Your task to perform on an android device: Open calendar and show me the fourth week of next month Image 0: 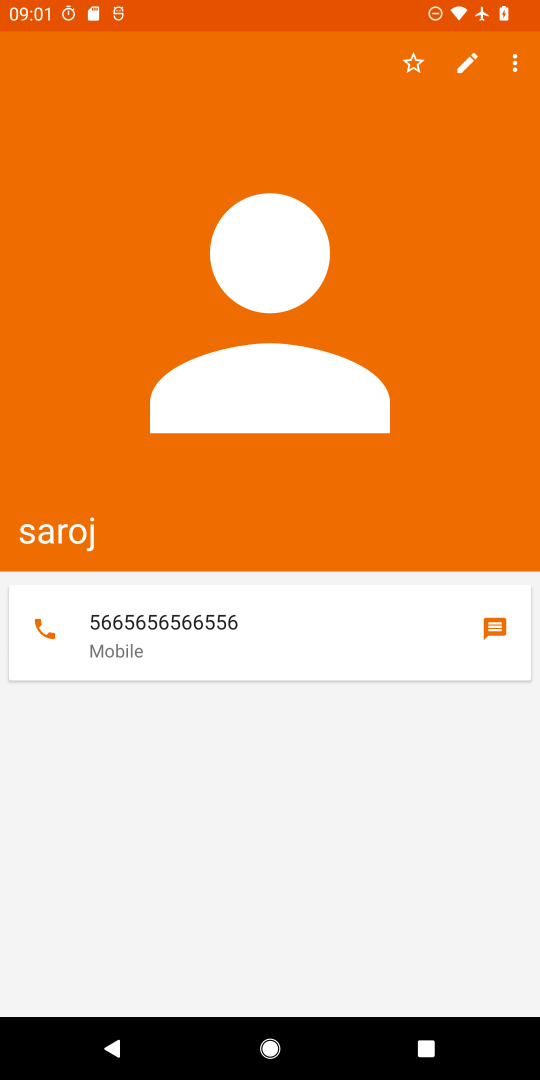
Step 0: press home button
Your task to perform on an android device: Open calendar and show me the fourth week of next month Image 1: 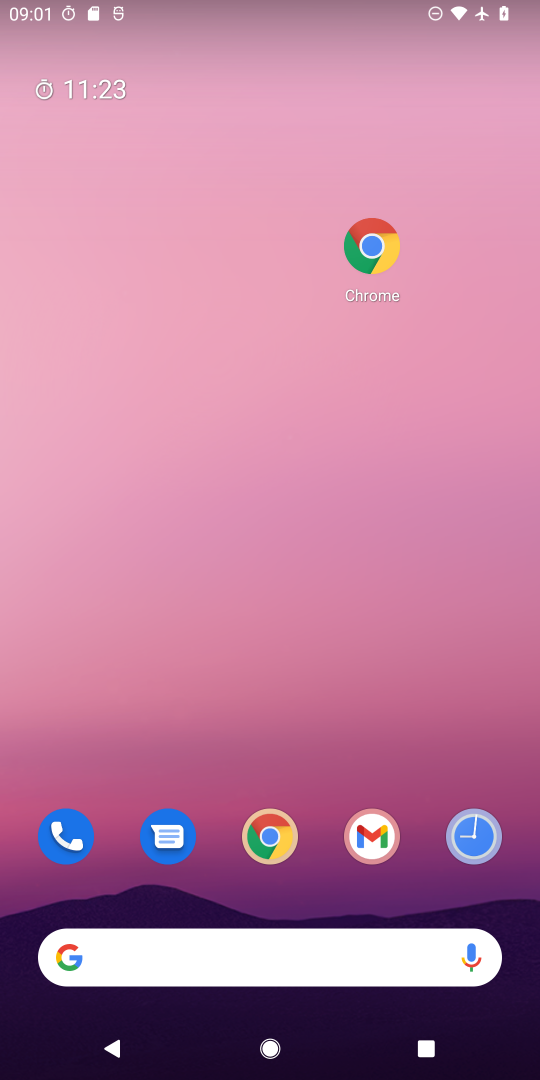
Step 1: drag from (353, 946) to (329, 155)
Your task to perform on an android device: Open calendar and show me the fourth week of next month Image 2: 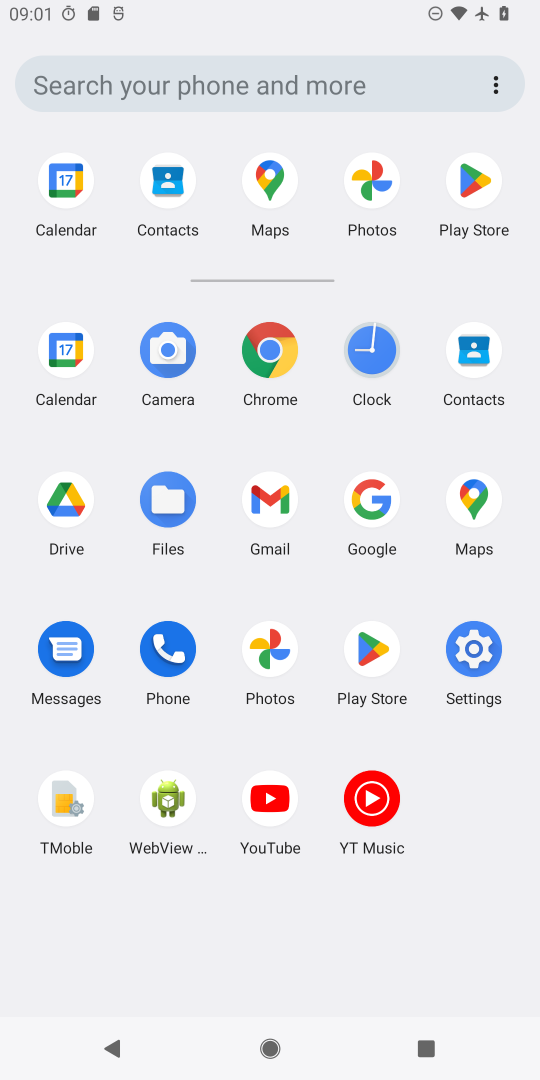
Step 2: click (71, 333)
Your task to perform on an android device: Open calendar and show me the fourth week of next month Image 3: 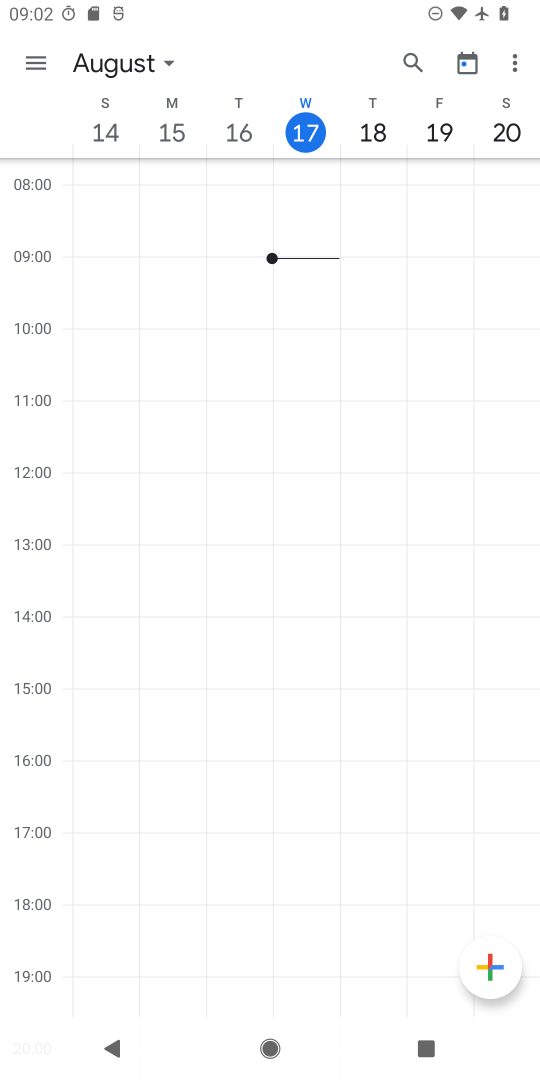
Step 3: task complete